Your task to perform on an android device: change the clock display to show seconds Image 0: 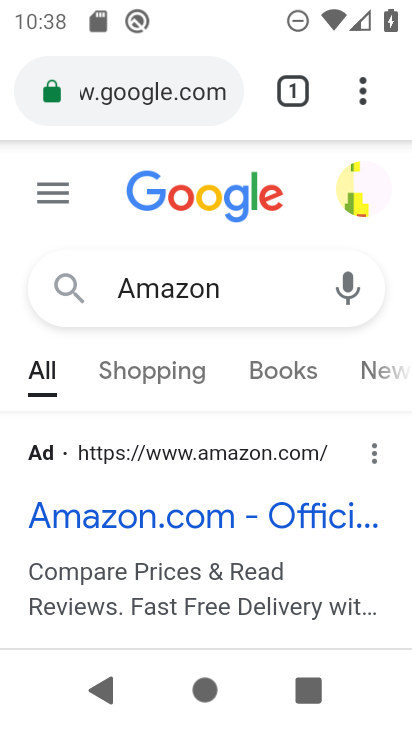
Step 0: press home button
Your task to perform on an android device: change the clock display to show seconds Image 1: 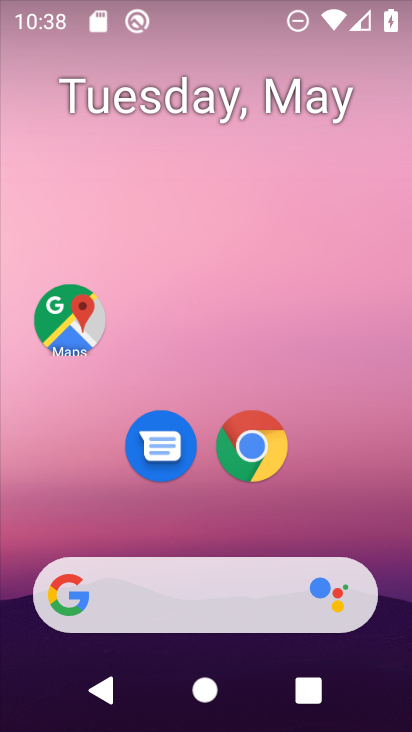
Step 1: drag from (222, 523) to (257, 123)
Your task to perform on an android device: change the clock display to show seconds Image 2: 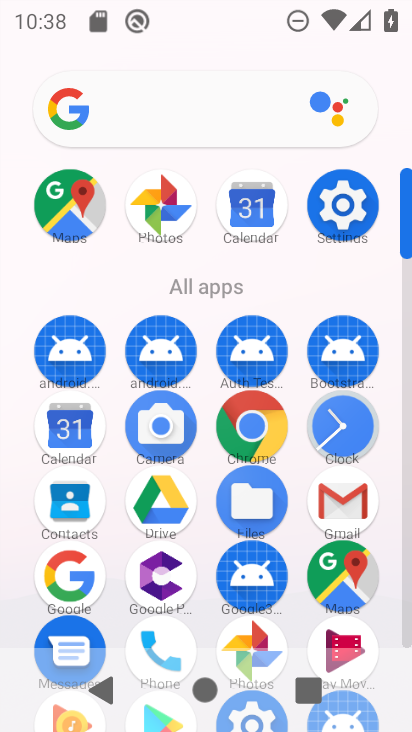
Step 2: click (359, 227)
Your task to perform on an android device: change the clock display to show seconds Image 3: 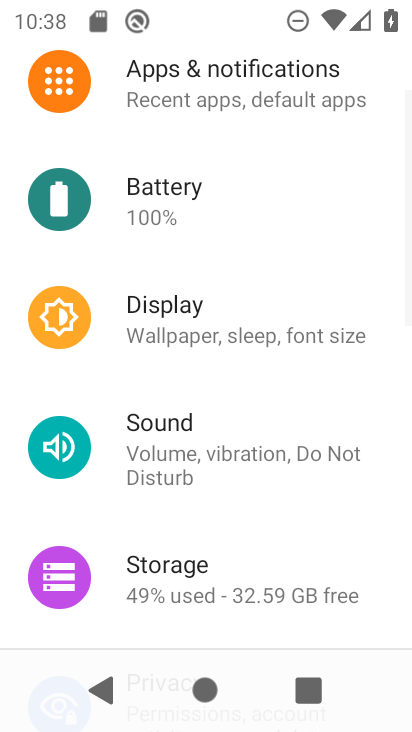
Step 3: press home button
Your task to perform on an android device: change the clock display to show seconds Image 4: 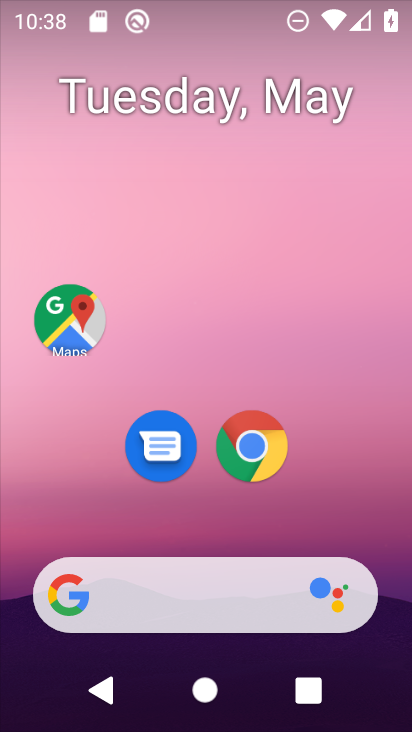
Step 4: drag from (230, 499) to (287, 203)
Your task to perform on an android device: change the clock display to show seconds Image 5: 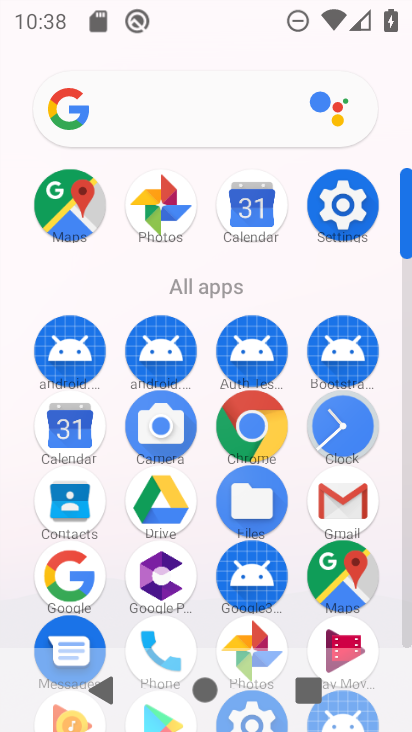
Step 5: click (342, 429)
Your task to perform on an android device: change the clock display to show seconds Image 6: 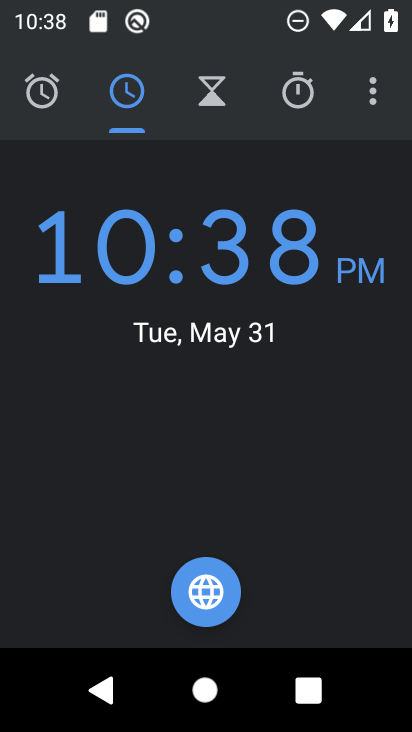
Step 6: click (378, 96)
Your task to perform on an android device: change the clock display to show seconds Image 7: 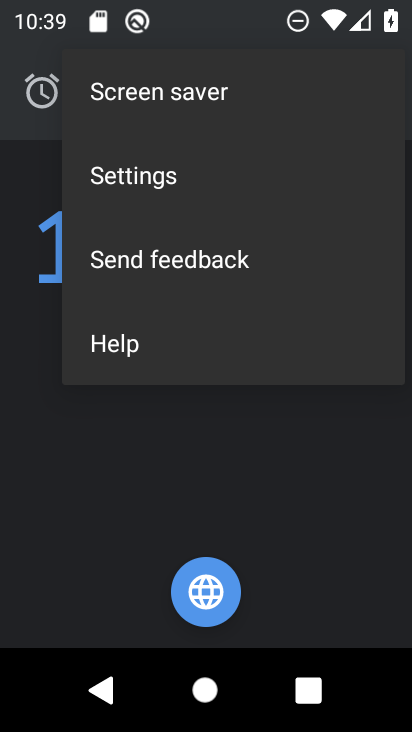
Step 7: click (184, 176)
Your task to perform on an android device: change the clock display to show seconds Image 8: 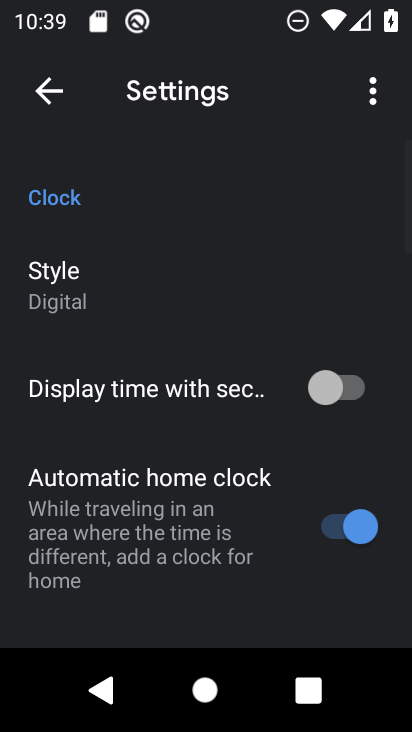
Step 8: click (128, 303)
Your task to perform on an android device: change the clock display to show seconds Image 9: 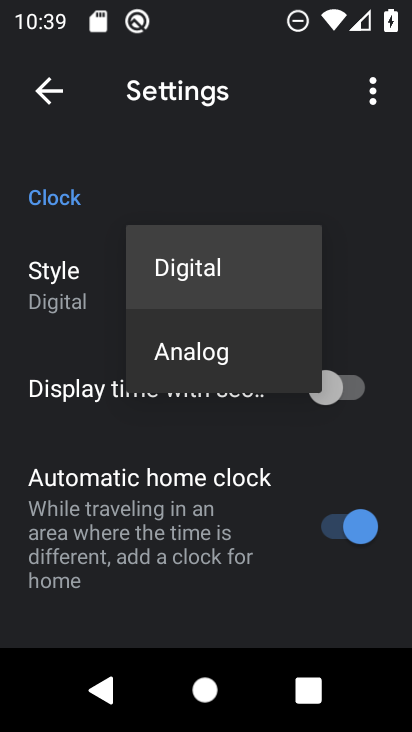
Step 9: click (192, 345)
Your task to perform on an android device: change the clock display to show seconds Image 10: 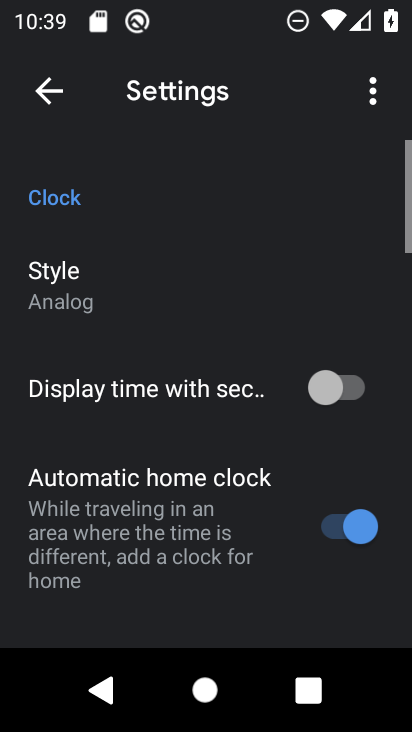
Step 10: click (378, 386)
Your task to perform on an android device: change the clock display to show seconds Image 11: 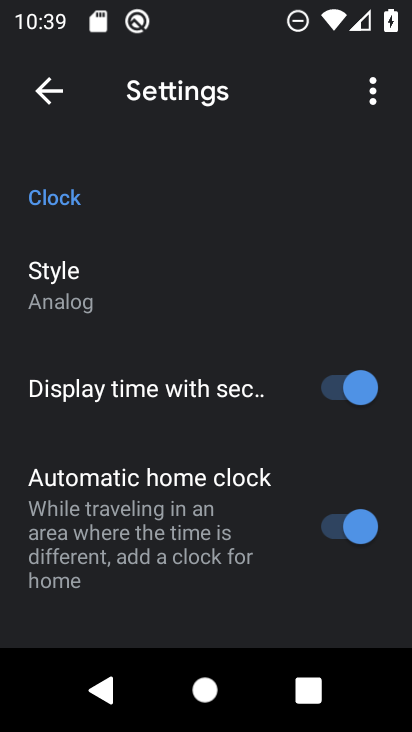
Step 11: task complete